Your task to perform on an android device: clear history in the chrome app Image 0: 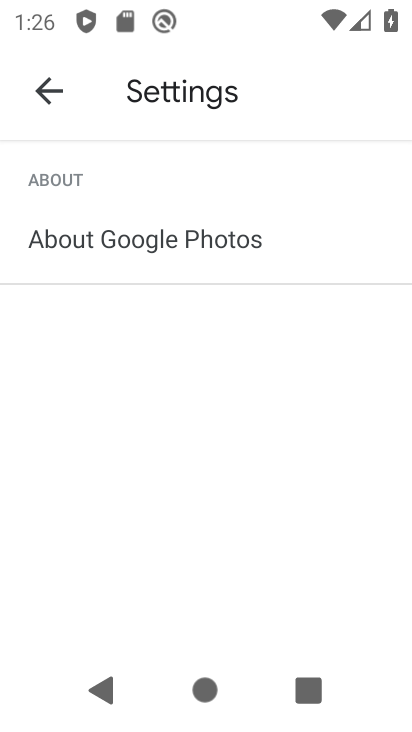
Step 0: press home button
Your task to perform on an android device: clear history in the chrome app Image 1: 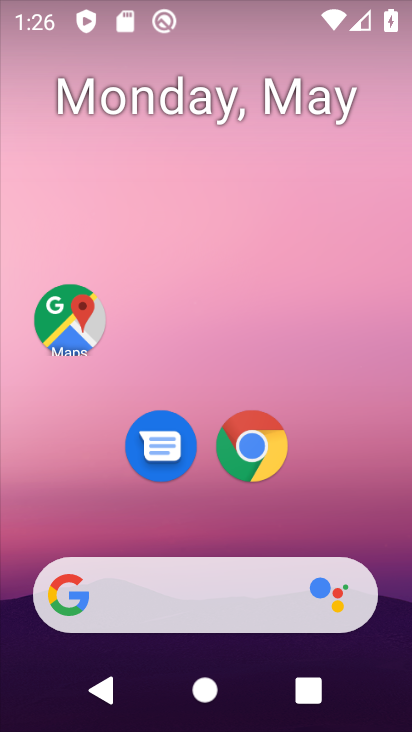
Step 1: click (261, 475)
Your task to perform on an android device: clear history in the chrome app Image 2: 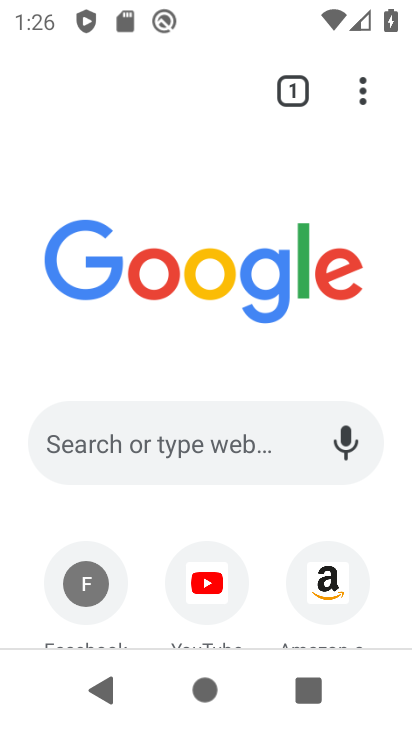
Step 2: drag from (354, 92) to (116, 322)
Your task to perform on an android device: clear history in the chrome app Image 3: 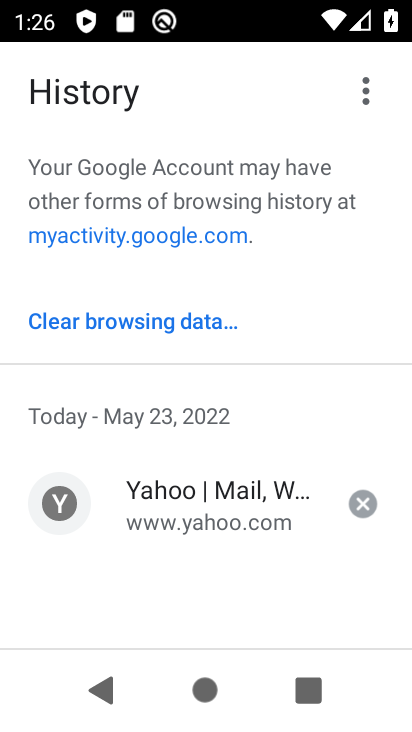
Step 3: click (140, 314)
Your task to perform on an android device: clear history in the chrome app Image 4: 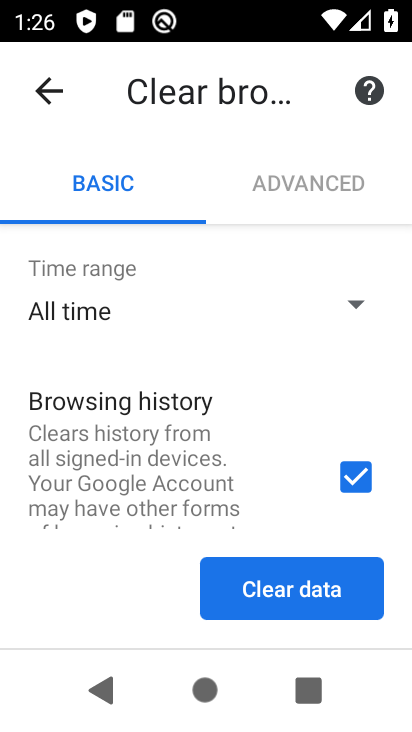
Step 4: click (307, 599)
Your task to perform on an android device: clear history in the chrome app Image 5: 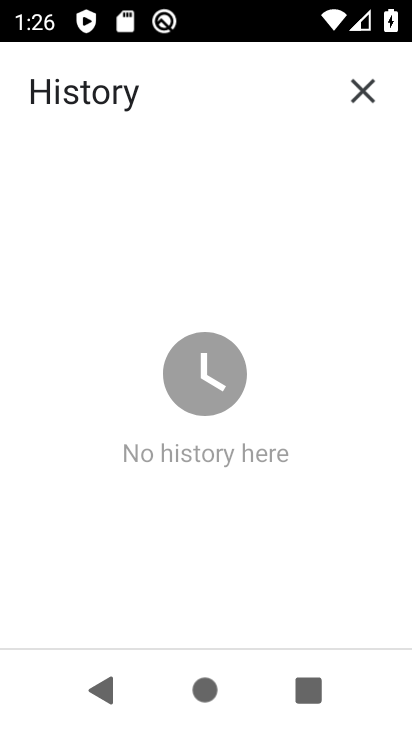
Step 5: task complete